Your task to perform on an android device: Open the calendar app, open the side menu, and click the "Day" option Image 0: 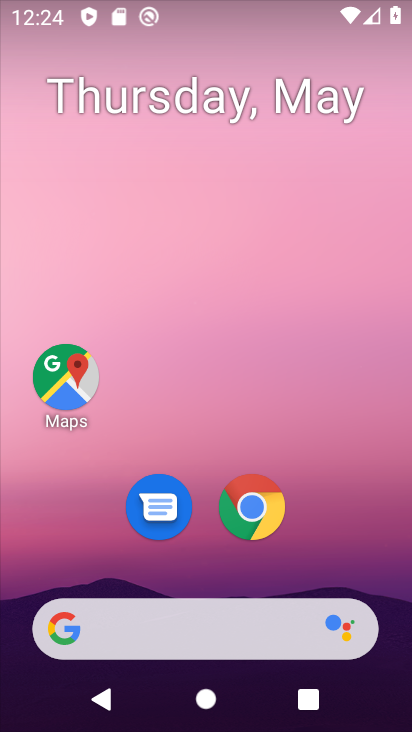
Step 0: drag from (294, 573) to (271, 534)
Your task to perform on an android device: Open the calendar app, open the side menu, and click the "Day" option Image 1: 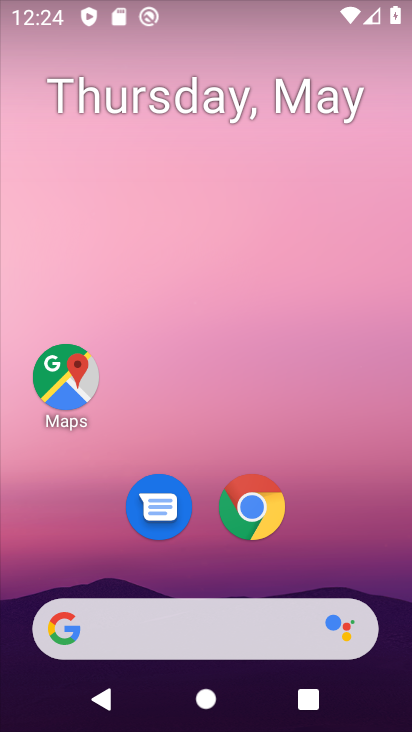
Step 1: drag from (282, 552) to (149, 95)
Your task to perform on an android device: Open the calendar app, open the side menu, and click the "Day" option Image 2: 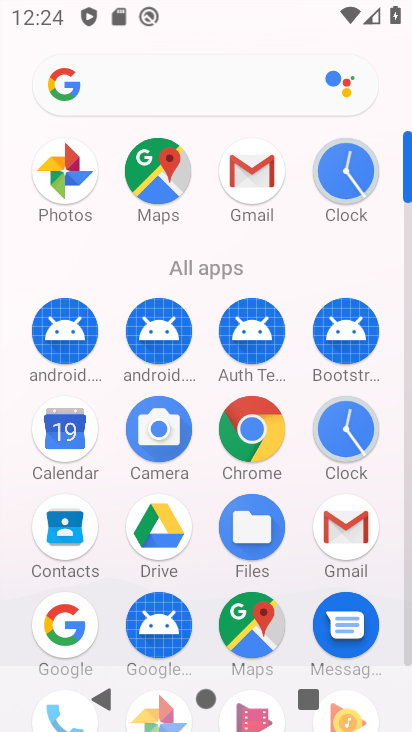
Step 2: click (78, 436)
Your task to perform on an android device: Open the calendar app, open the side menu, and click the "Day" option Image 3: 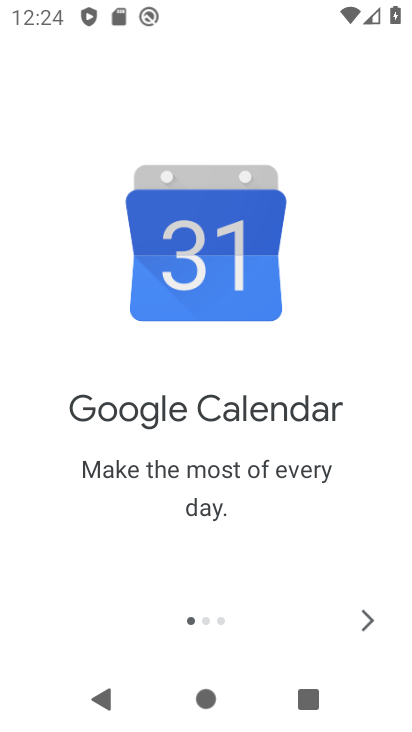
Step 3: click (360, 625)
Your task to perform on an android device: Open the calendar app, open the side menu, and click the "Day" option Image 4: 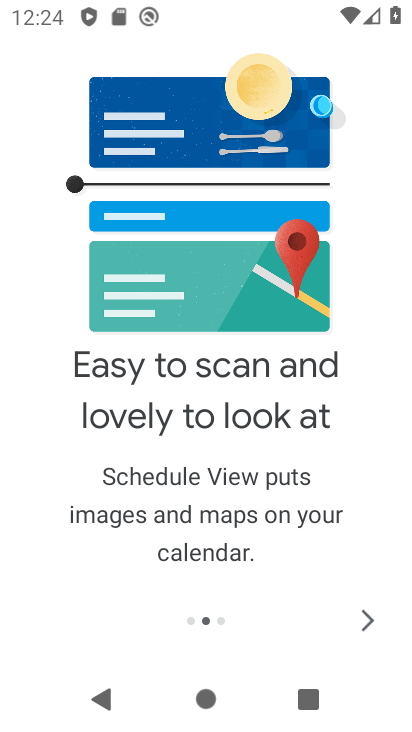
Step 4: click (361, 625)
Your task to perform on an android device: Open the calendar app, open the side menu, and click the "Day" option Image 5: 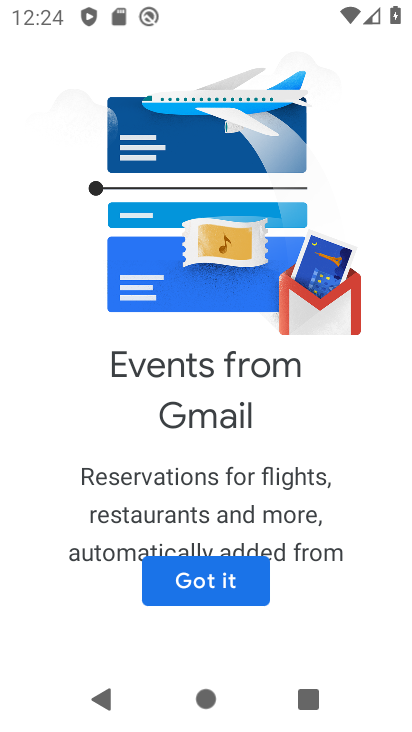
Step 5: click (236, 582)
Your task to perform on an android device: Open the calendar app, open the side menu, and click the "Day" option Image 6: 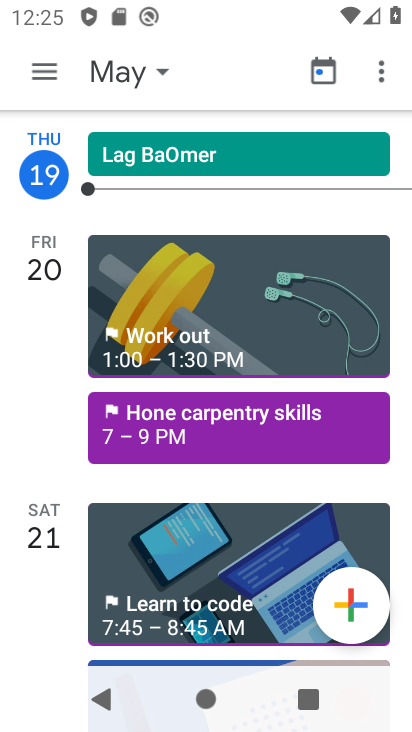
Step 6: click (39, 69)
Your task to perform on an android device: Open the calendar app, open the side menu, and click the "Day" option Image 7: 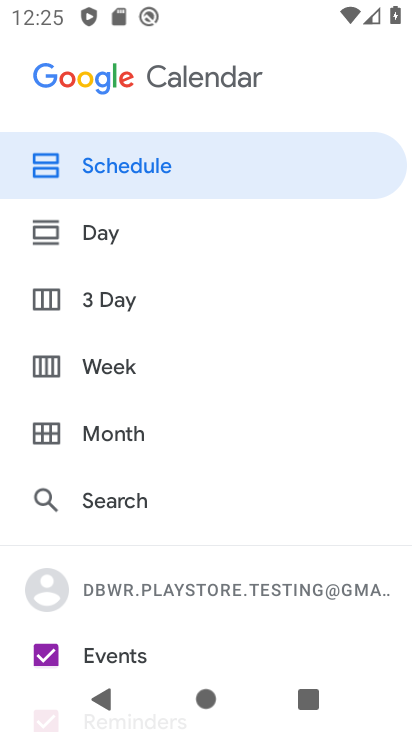
Step 7: click (98, 244)
Your task to perform on an android device: Open the calendar app, open the side menu, and click the "Day" option Image 8: 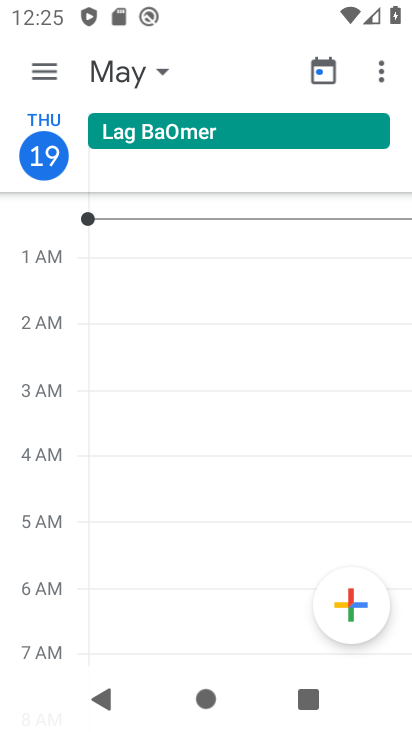
Step 8: task complete